Your task to perform on an android device: Show me popular games on the Play Store Image 0: 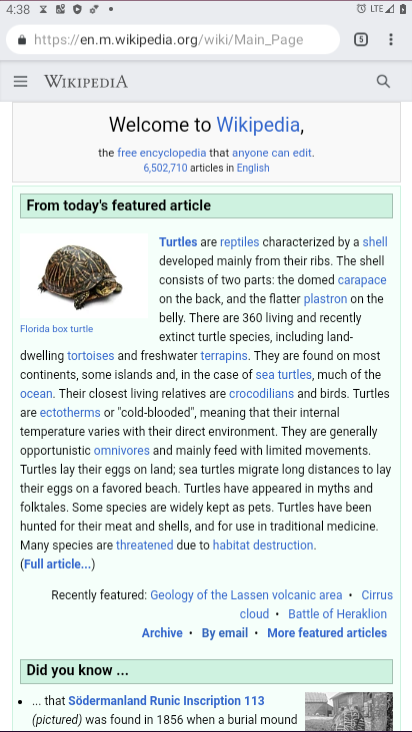
Step 0: drag from (260, 639) to (224, 224)
Your task to perform on an android device: Show me popular games on the Play Store Image 1: 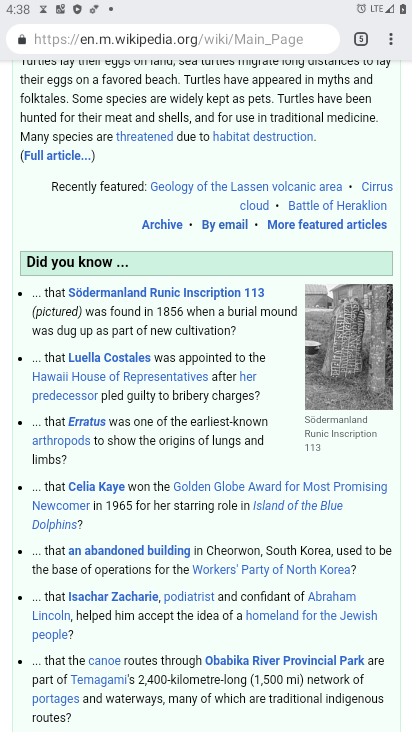
Step 1: press home button
Your task to perform on an android device: Show me popular games on the Play Store Image 2: 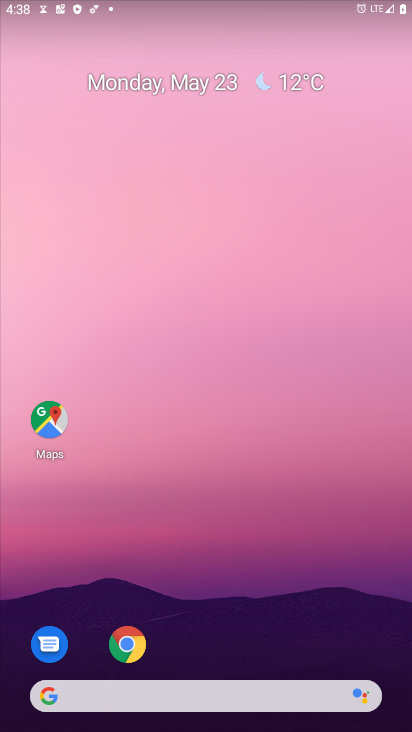
Step 2: drag from (234, 649) to (185, 188)
Your task to perform on an android device: Show me popular games on the Play Store Image 3: 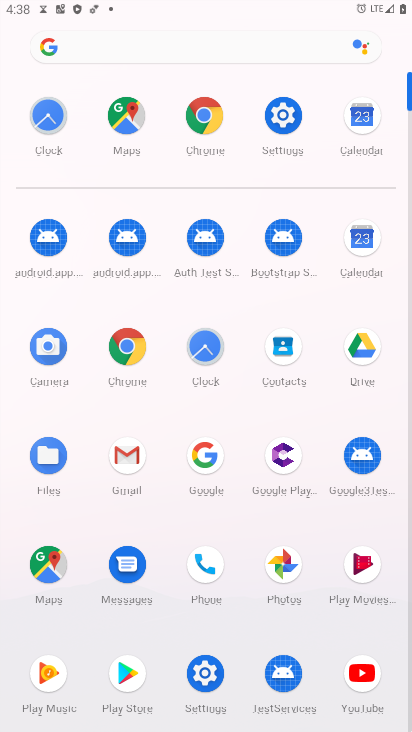
Step 3: click (123, 685)
Your task to perform on an android device: Show me popular games on the Play Store Image 4: 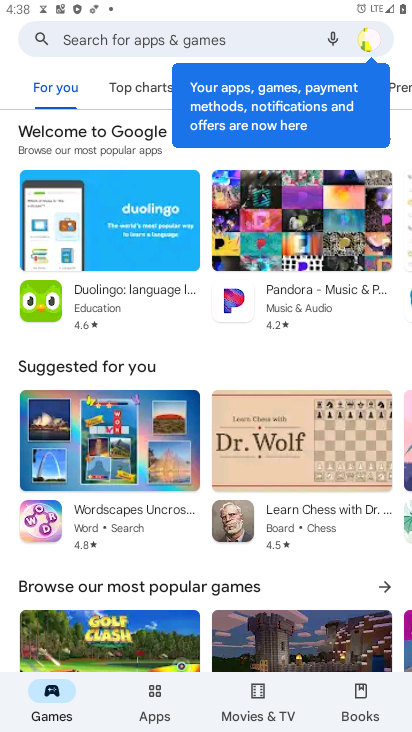
Step 4: click (115, 144)
Your task to perform on an android device: Show me popular games on the Play Store Image 5: 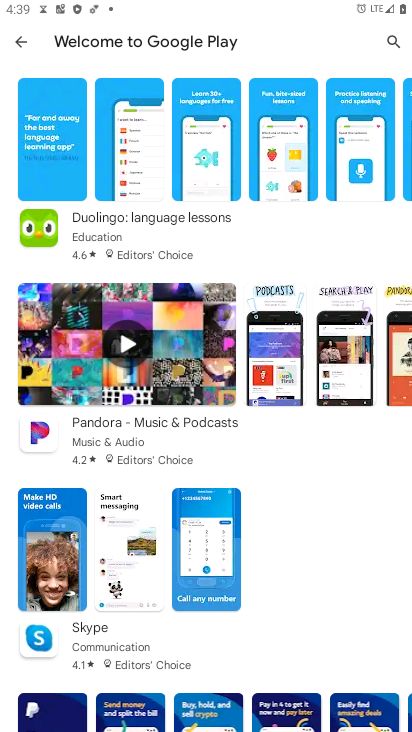
Step 5: task complete